Your task to perform on an android device: Go to settings Image 0: 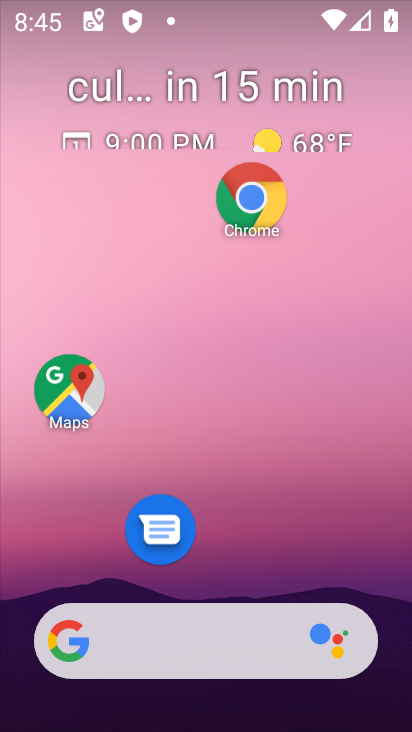
Step 0: drag from (225, 580) to (206, 68)
Your task to perform on an android device: Go to settings Image 1: 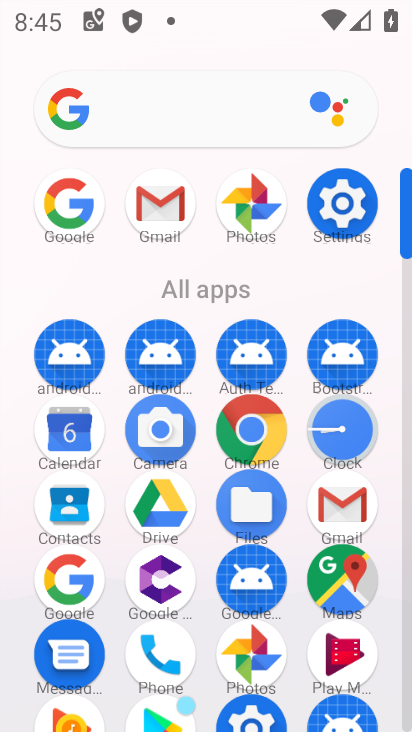
Step 1: click (312, 215)
Your task to perform on an android device: Go to settings Image 2: 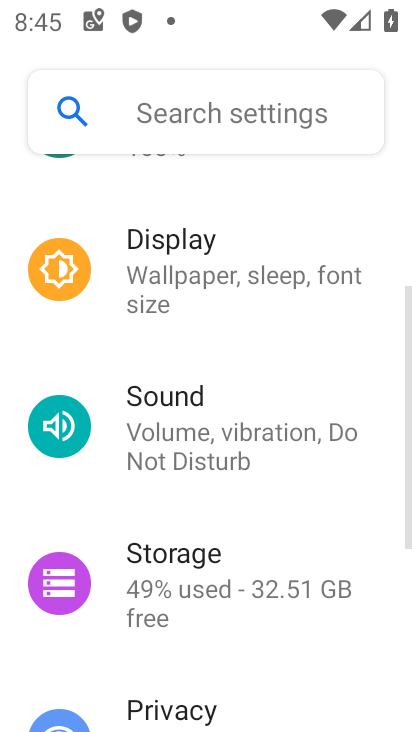
Step 2: task complete